Your task to perform on an android device: turn off improve location accuracy Image 0: 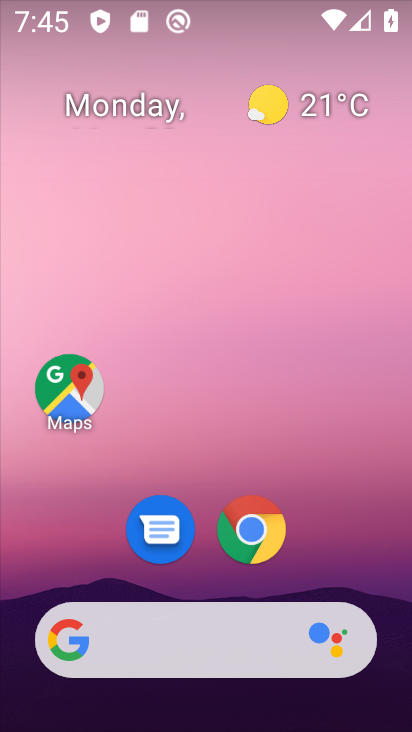
Step 0: drag from (339, 553) to (344, 45)
Your task to perform on an android device: turn off improve location accuracy Image 1: 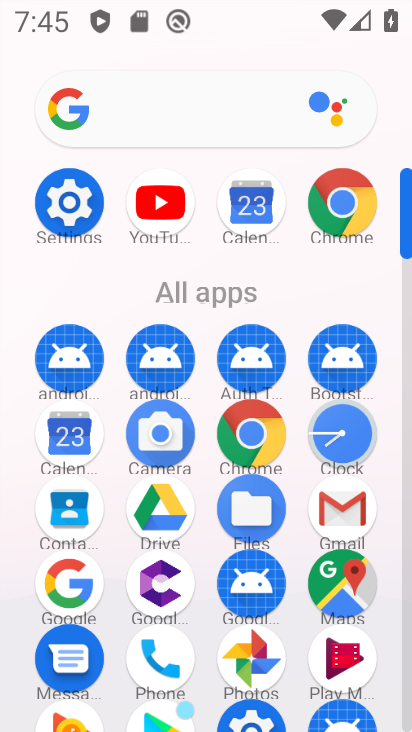
Step 1: click (57, 193)
Your task to perform on an android device: turn off improve location accuracy Image 2: 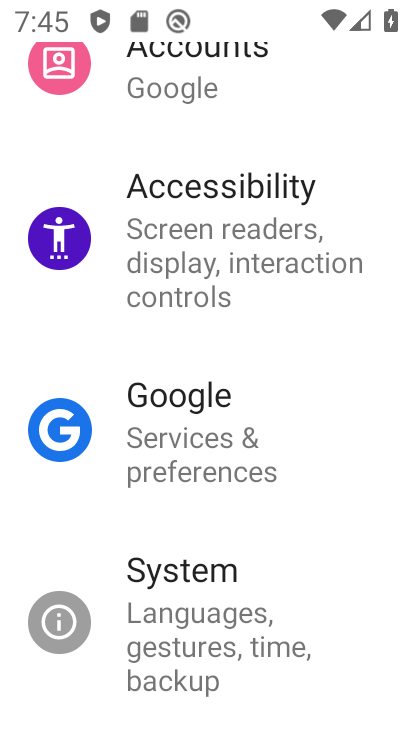
Step 2: drag from (246, 336) to (263, 676)
Your task to perform on an android device: turn off improve location accuracy Image 3: 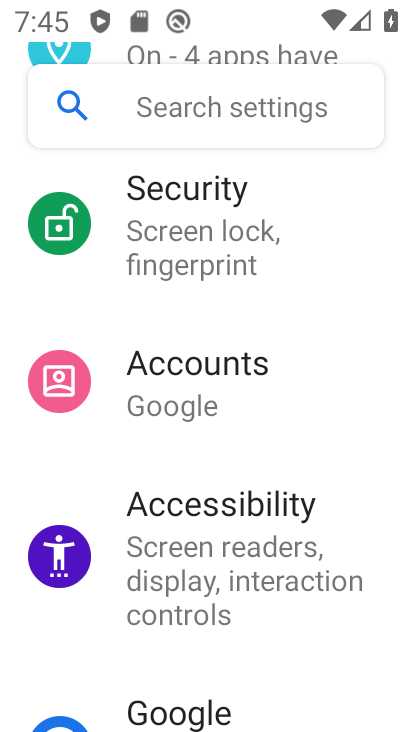
Step 3: drag from (261, 335) to (272, 494)
Your task to perform on an android device: turn off improve location accuracy Image 4: 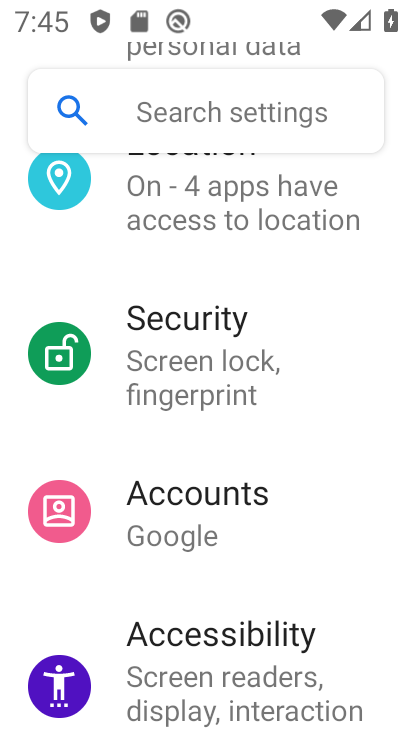
Step 4: click (295, 221)
Your task to perform on an android device: turn off improve location accuracy Image 5: 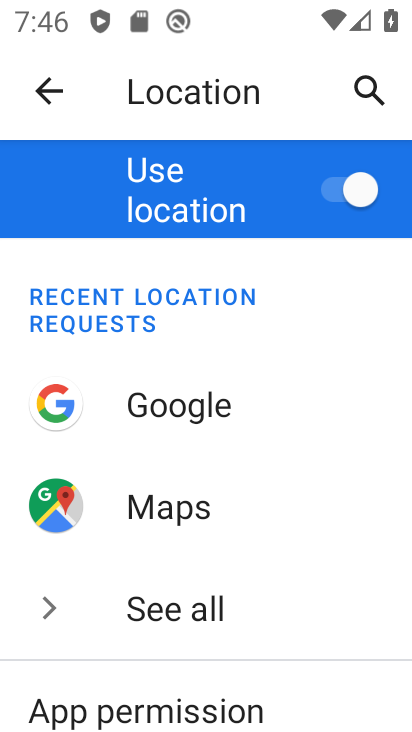
Step 5: drag from (243, 626) to (252, 316)
Your task to perform on an android device: turn off improve location accuracy Image 6: 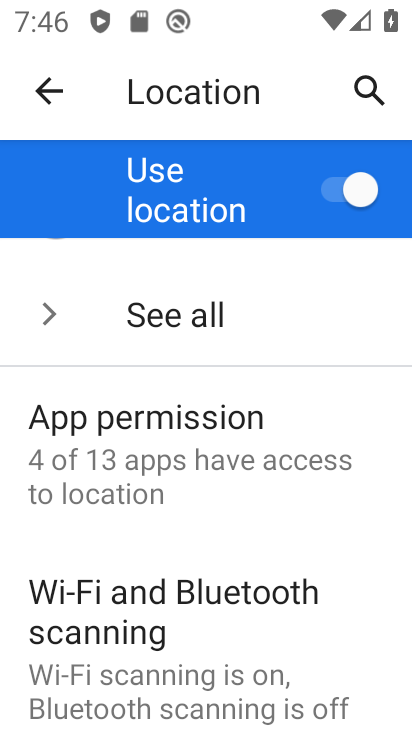
Step 6: drag from (224, 633) to (248, 317)
Your task to perform on an android device: turn off improve location accuracy Image 7: 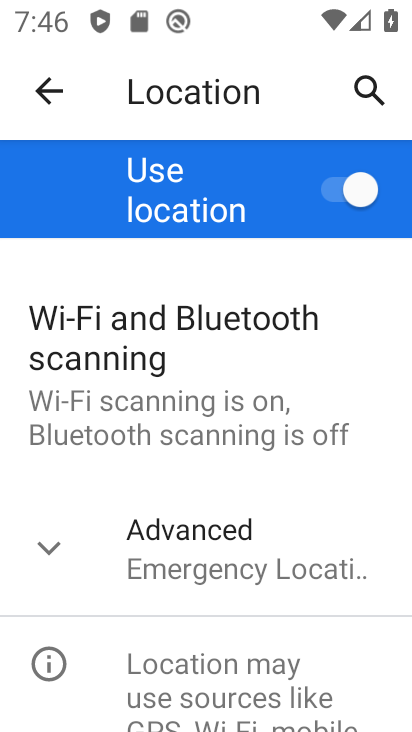
Step 7: drag from (210, 597) to (223, 399)
Your task to perform on an android device: turn off improve location accuracy Image 8: 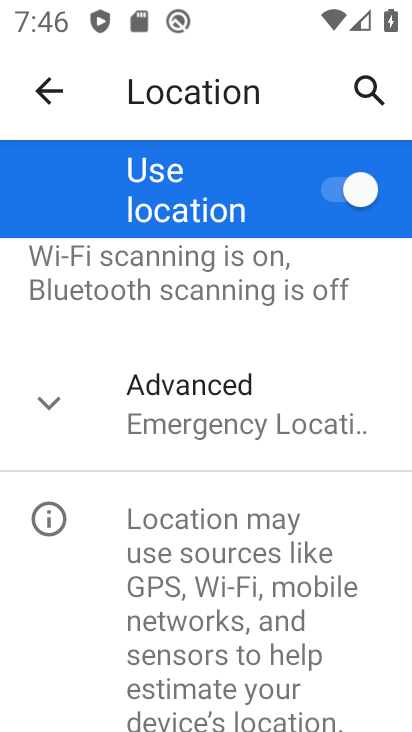
Step 8: click (199, 429)
Your task to perform on an android device: turn off improve location accuracy Image 9: 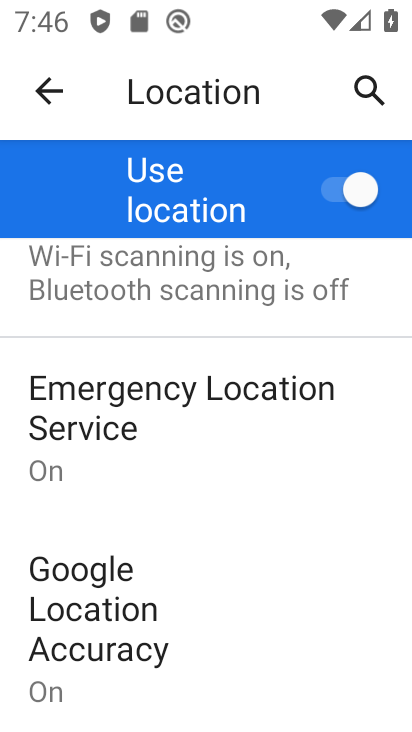
Step 9: click (225, 656)
Your task to perform on an android device: turn off improve location accuracy Image 10: 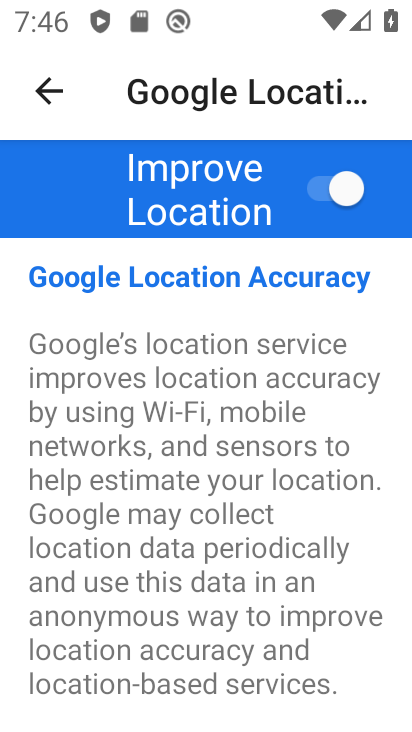
Step 10: click (295, 189)
Your task to perform on an android device: turn off improve location accuracy Image 11: 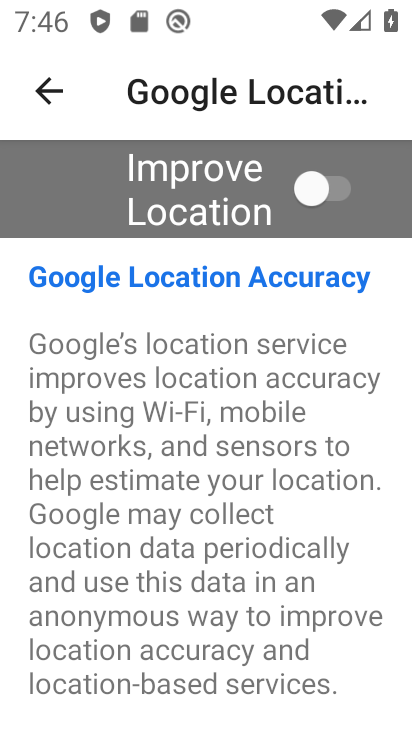
Step 11: task complete